Your task to perform on an android device: turn off priority inbox in the gmail app Image 0: 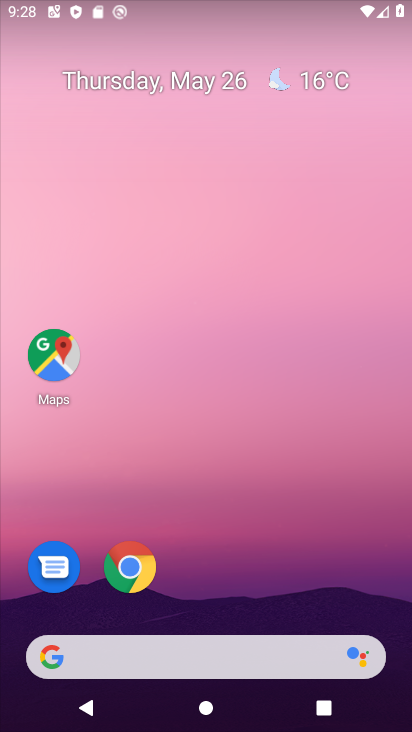
Step 0: drag from (380, 635) to (10, 124)
Your task to perform on an android device: turn off priority inbox in the gmail app Image 1: 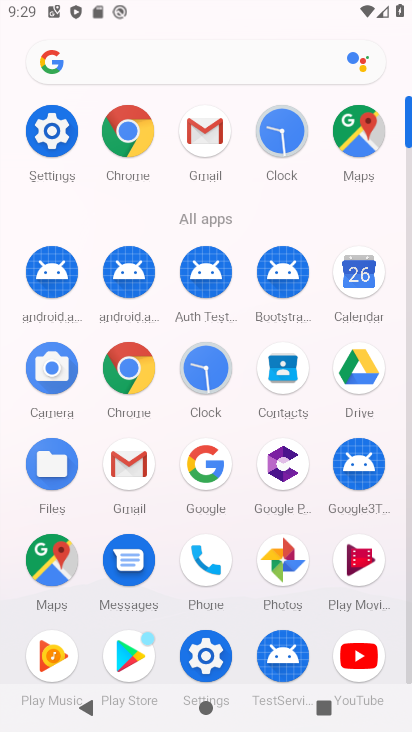
Step 1: click (199, 138)
Your task to perform on an android device: turn off priority inbox in the gmail app Image 2: 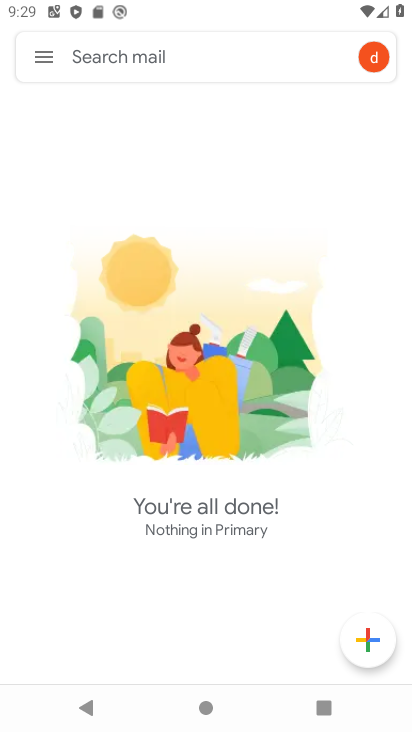
Step 2: click (37, 57)
Your task to perform on an android device: turn off priority inbox in the gmail app Image 3: 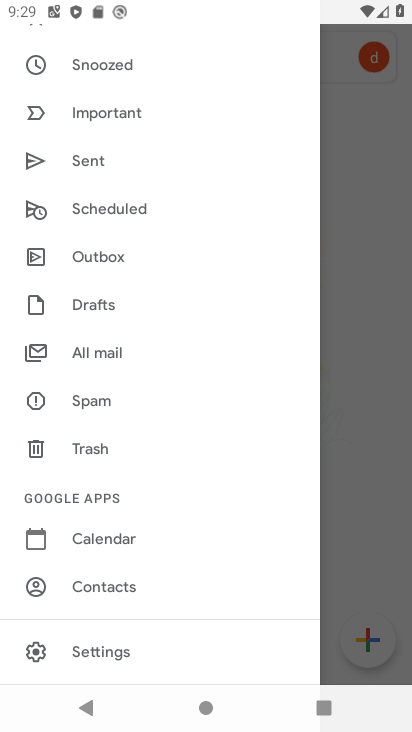
Step 3: click (122, 655)
Your task to perform on an android device: turn off priority inbox in the gmail app Image 4: 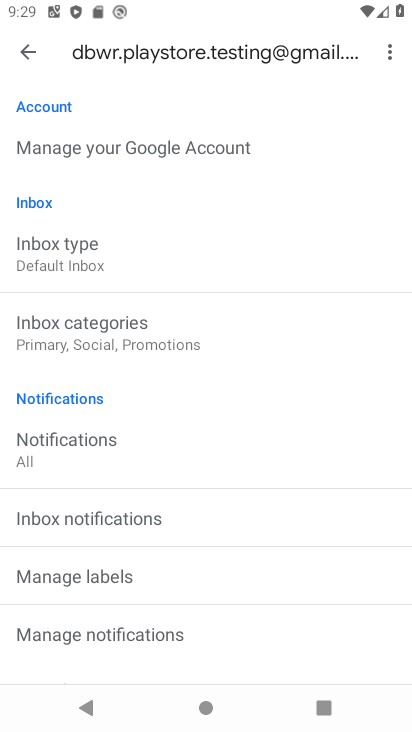
Step 4: click (64, 254)
Your task to perform on an android device: turn off priority inbox in the gmail app Image 5: 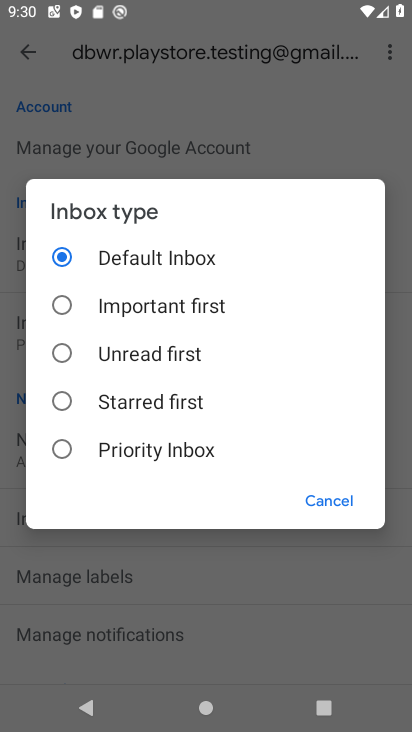
Step 5: task complete